Your task to perform on an android device: What's the weather going to be tomorrow? Image 0: 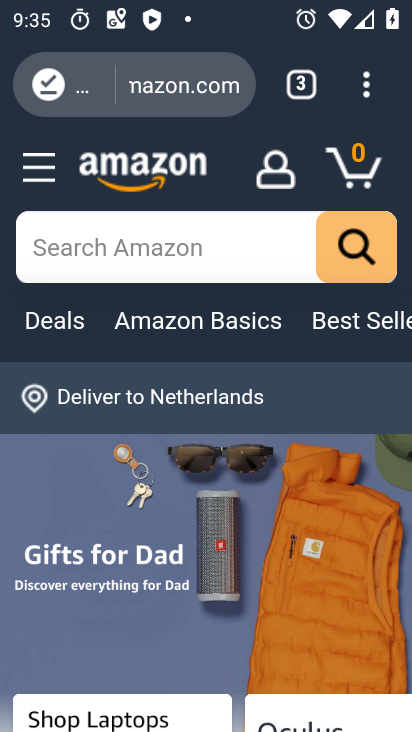
Step 0: press home button
Your task to perform on an android device: What's the weather going to be tomorrow? Image 1: 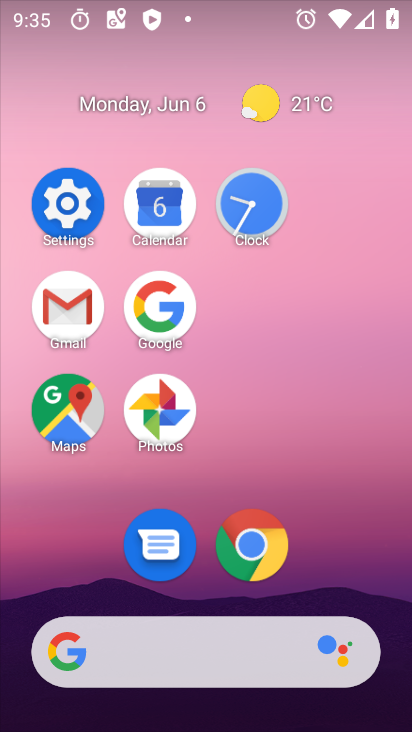
Step 1: click (147, 333)
Your task to perform on an android device: What's the weather going to be tomorrow? Image 2: 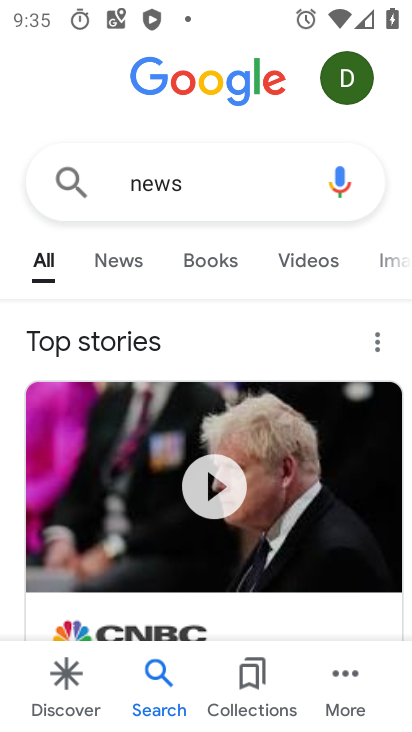
Step 2: click (245, 204)
Your task to perform on an android device: What's the weather going to be tomorrow? Image 3: 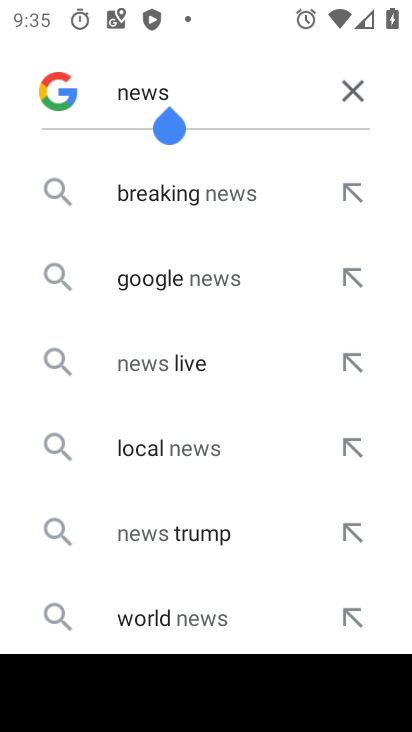
Step 3: click (345, 90)
Your task to perform on an android device: What's the weather going to be tomorrow? Image 4: 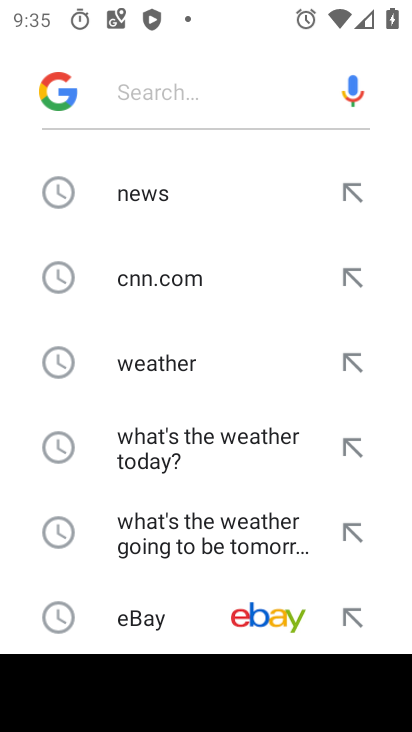
Step 4: click (120, 376)
Your task to perform on an android device: What's the weather going to be tomorrow? Image 5: 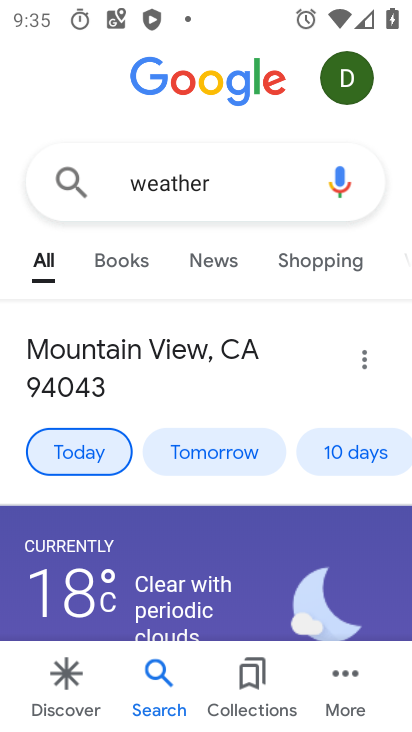
Step 5: click (192, 448)
Your task to perform on an android device: What's the weather going to be tomorrow? Image 6: 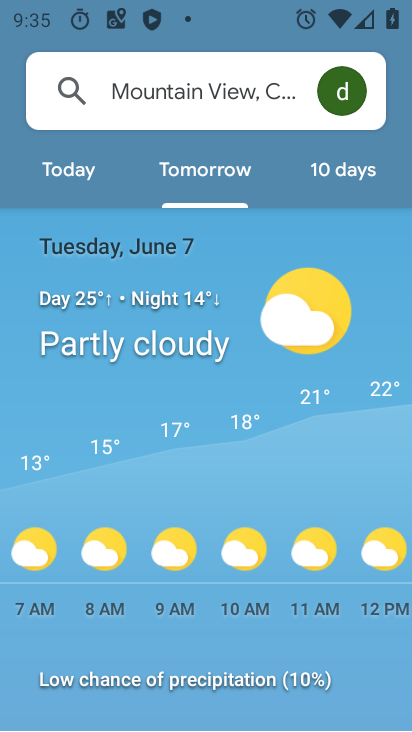
Step 6: task complete